Your task to perform on an android device: Go to Google Image 0: 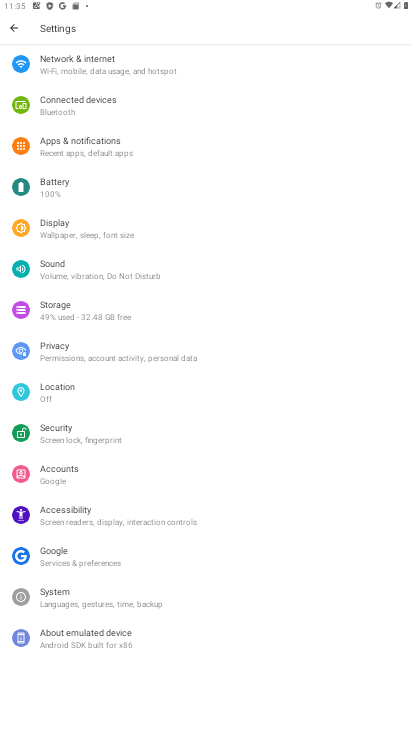
Step 0: press home button
Your task to perform on an android device: Go to Google Image 1: 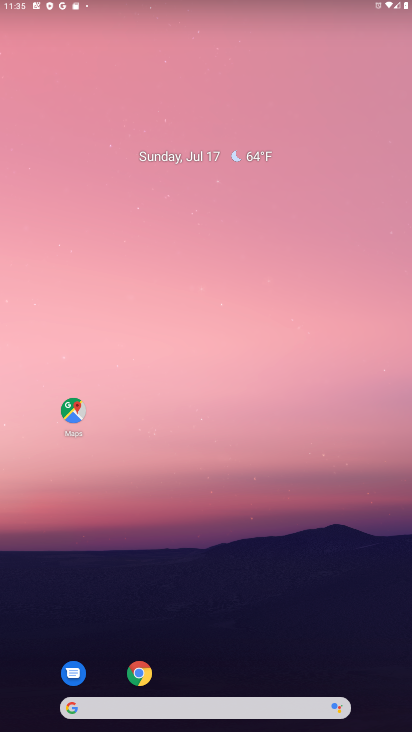
Step 1: drag from (219, 689) to (208, 110)
Your task to perform on an android device: Go to Google Image 2: 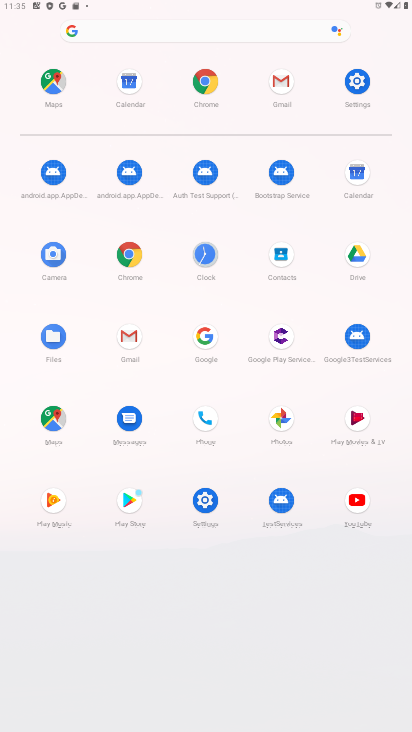
Step 2: click (205, 336)
Your task to perform on an android device: Go to Google Image 3: 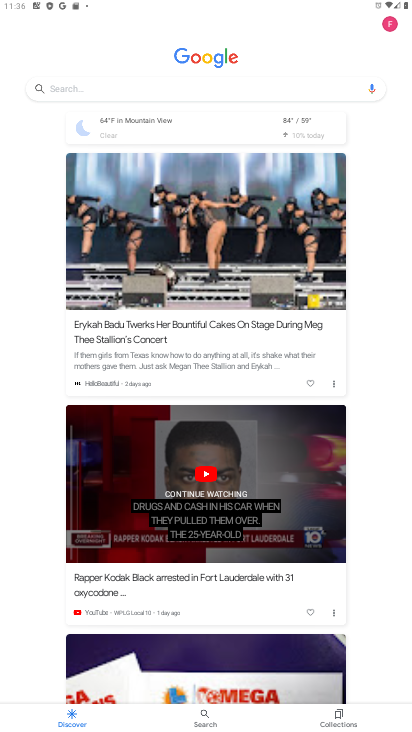
Step 3: task complete